Your task to perform on an android device: Is it going to rain this weekend? Image 0: 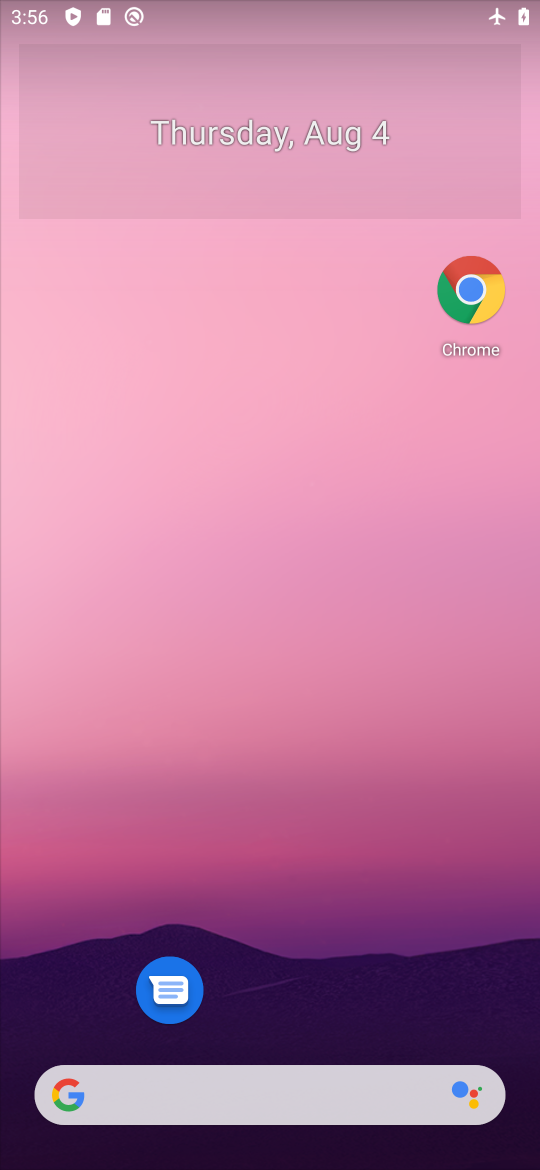
Step 0: drag from (371, 1021) to (267, 200)
Your task to perform on an android device: Is it going to rain this weekend? Image 1: 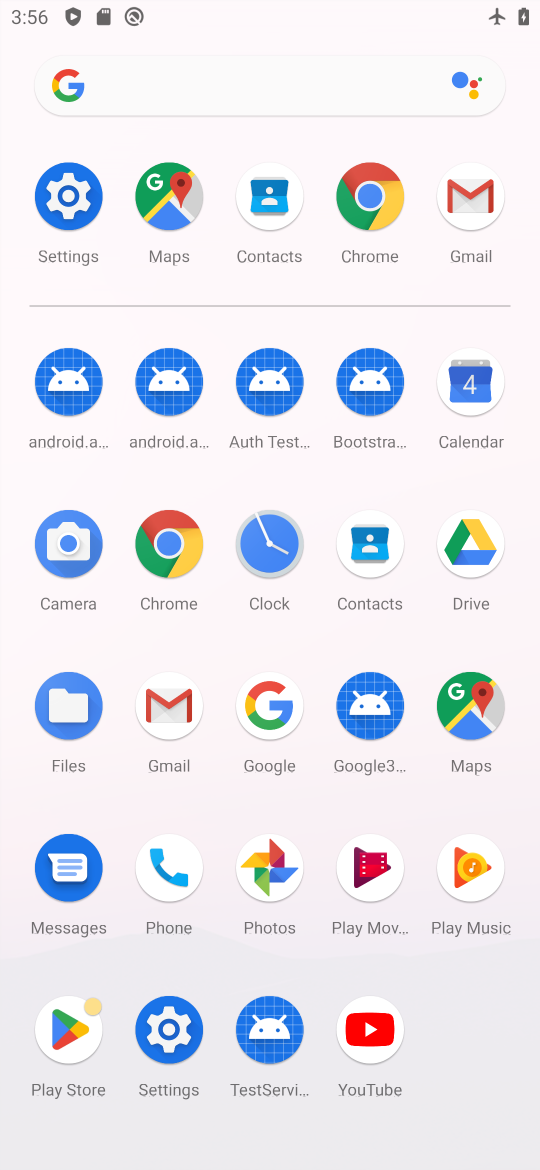
Step 1: click (365, 90)
Your task to perform on an android device: Is it going to rain this weekend? Image 2: 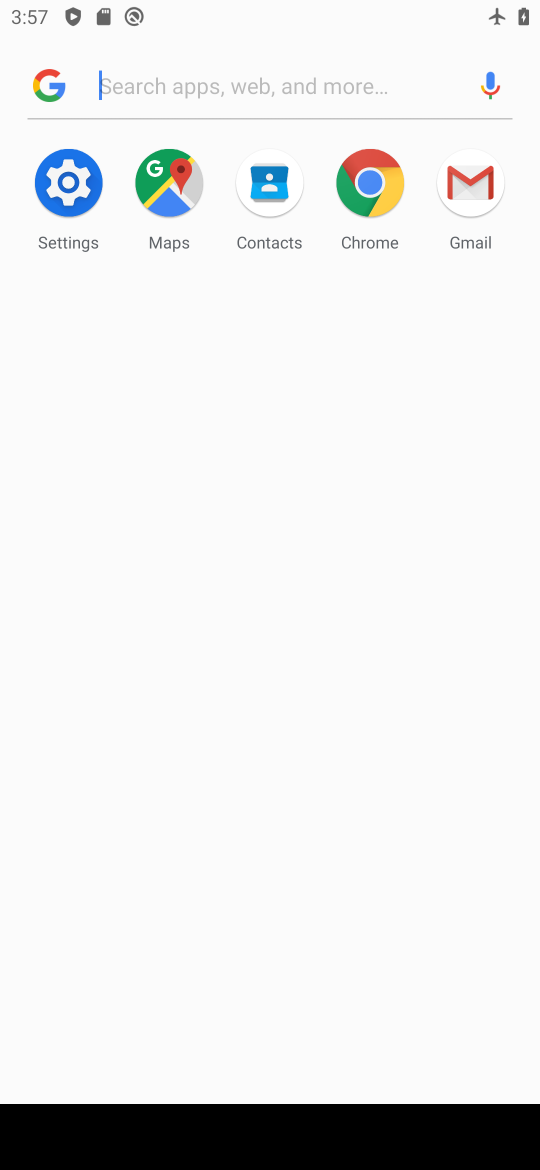
Step 2: task complete